Your task to perform on an android device: When is my next appointment? Image 0: 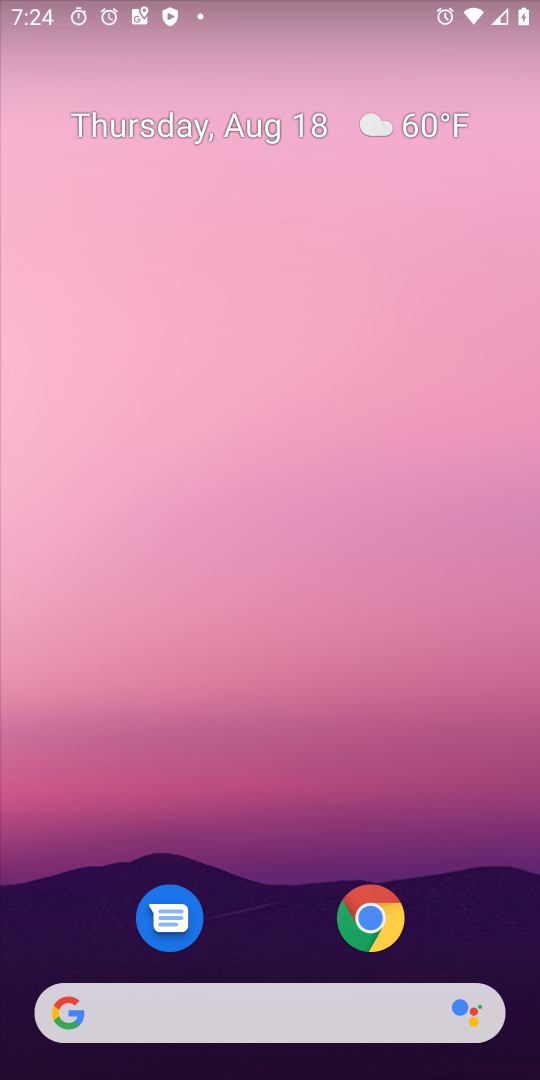
Step 0: drag from (268, 899) to (323, 98)
Your task to perform on an android device: When is my next appointment? Image 1: 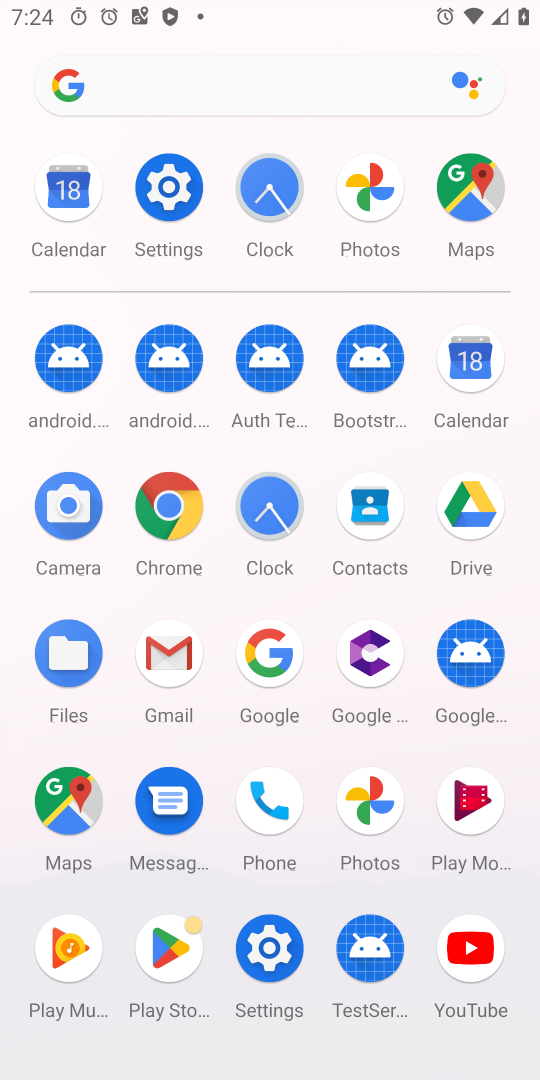
Step 1: click (475, 388)
Your task to perform on an android device: When is my next appointment? Image 2: 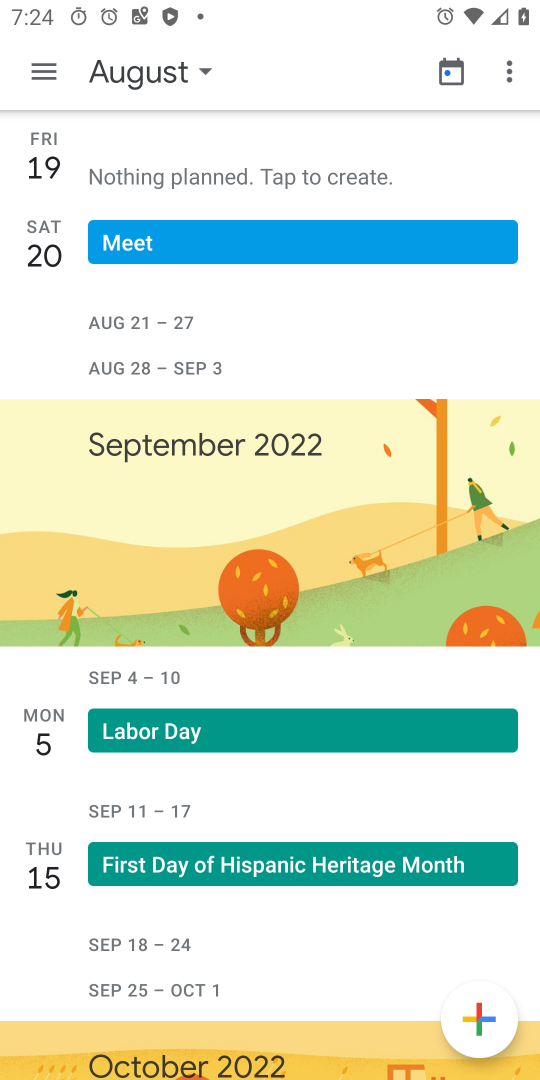
Step 2: click (48, 70)
Your task to perform on an android device: When is my next appointment? Image 3: 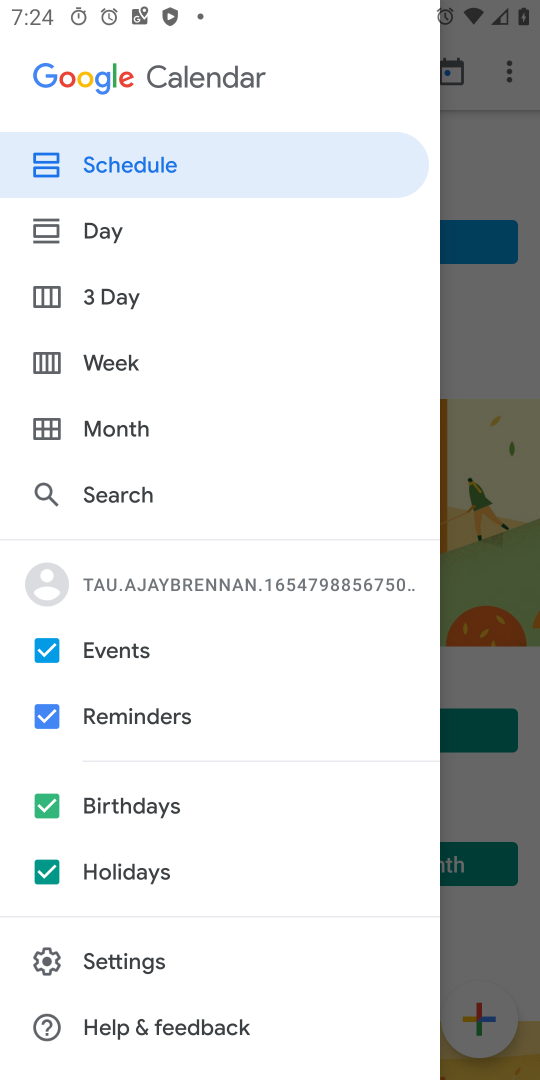
Step 3: click (121, 168)
Your task to perform on an android device: When is my next appointment? Image 4: 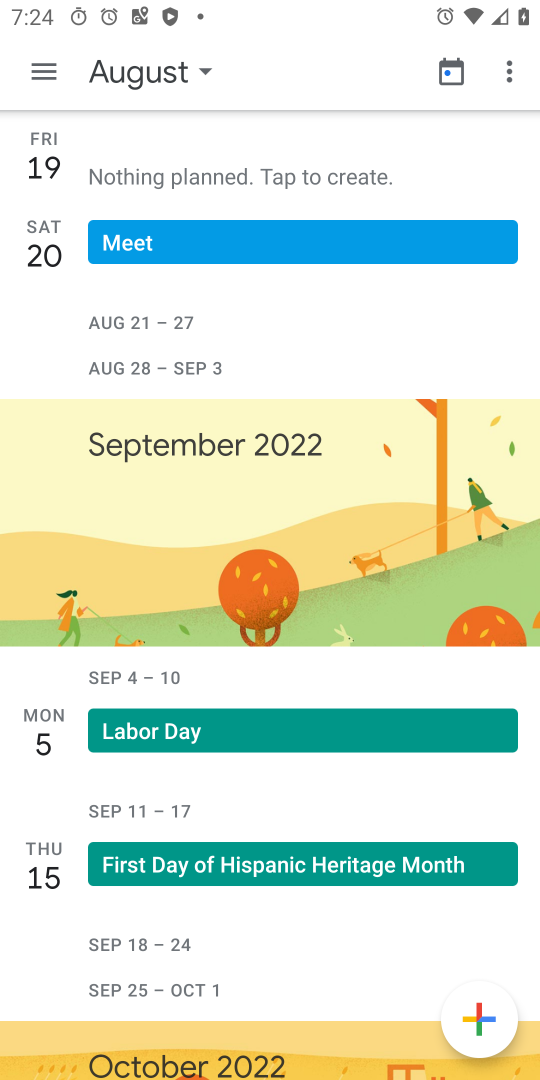
Step 4: click (28, 72)
Your task to perform on an android device: When is my next appointment? Image 5: 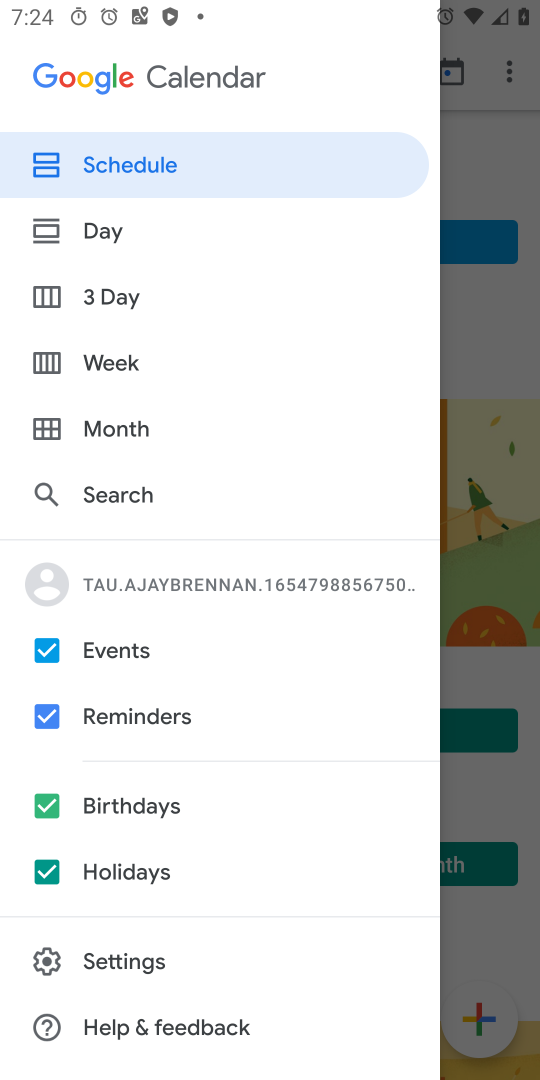
Step 5: click (154, 156)
Your task to perform on an android device: When is my next appointment? Image 6: 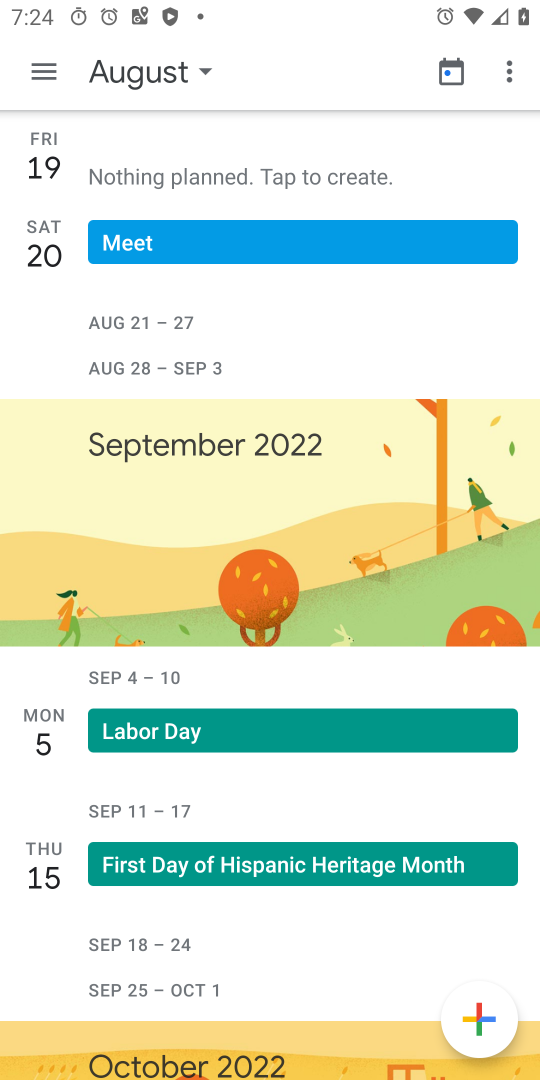
Step 6: task complete